Your task to perform on an android device: Open Google Maps and go to "Timeline" Image 0: 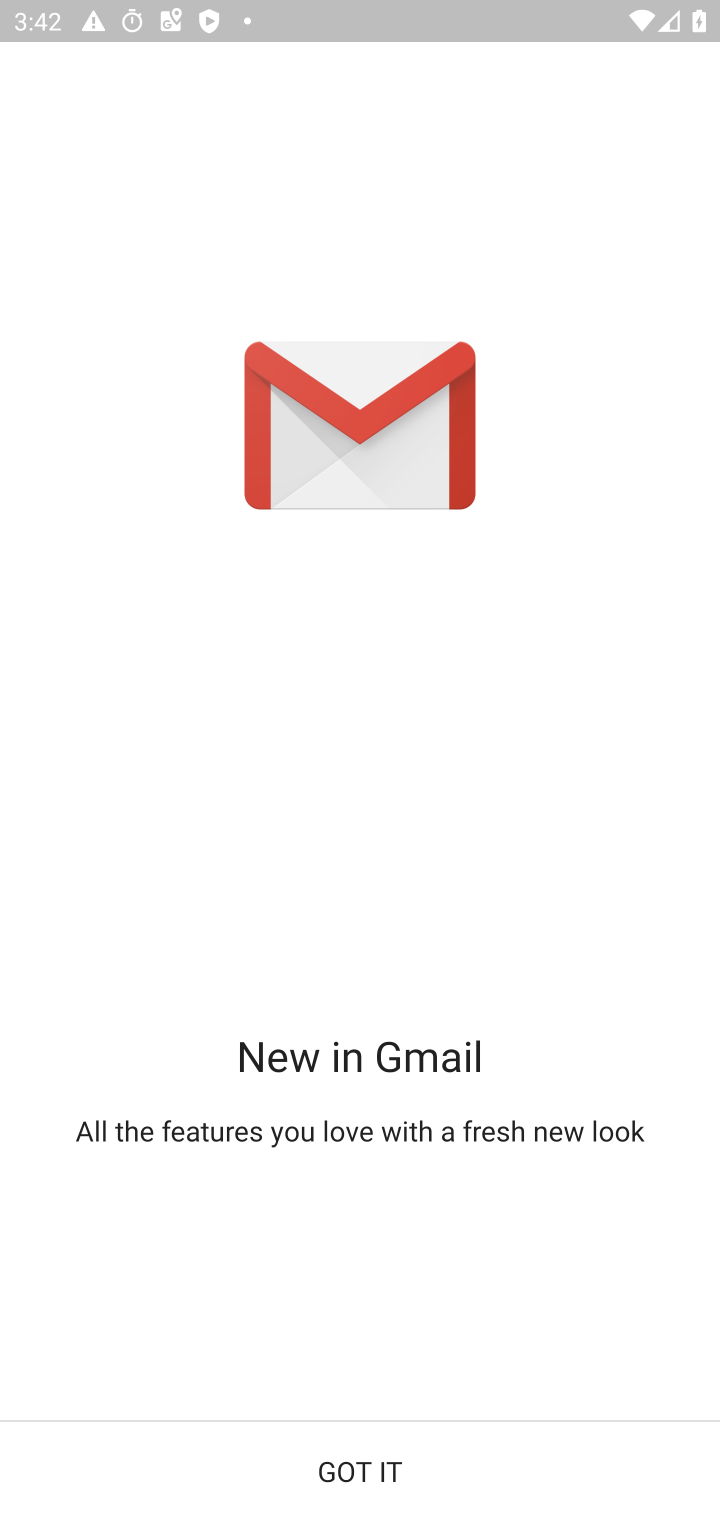
Step 0: press home button
Your task to perform on an android device: Open Google Maps and go to "Timeline" Image 1: 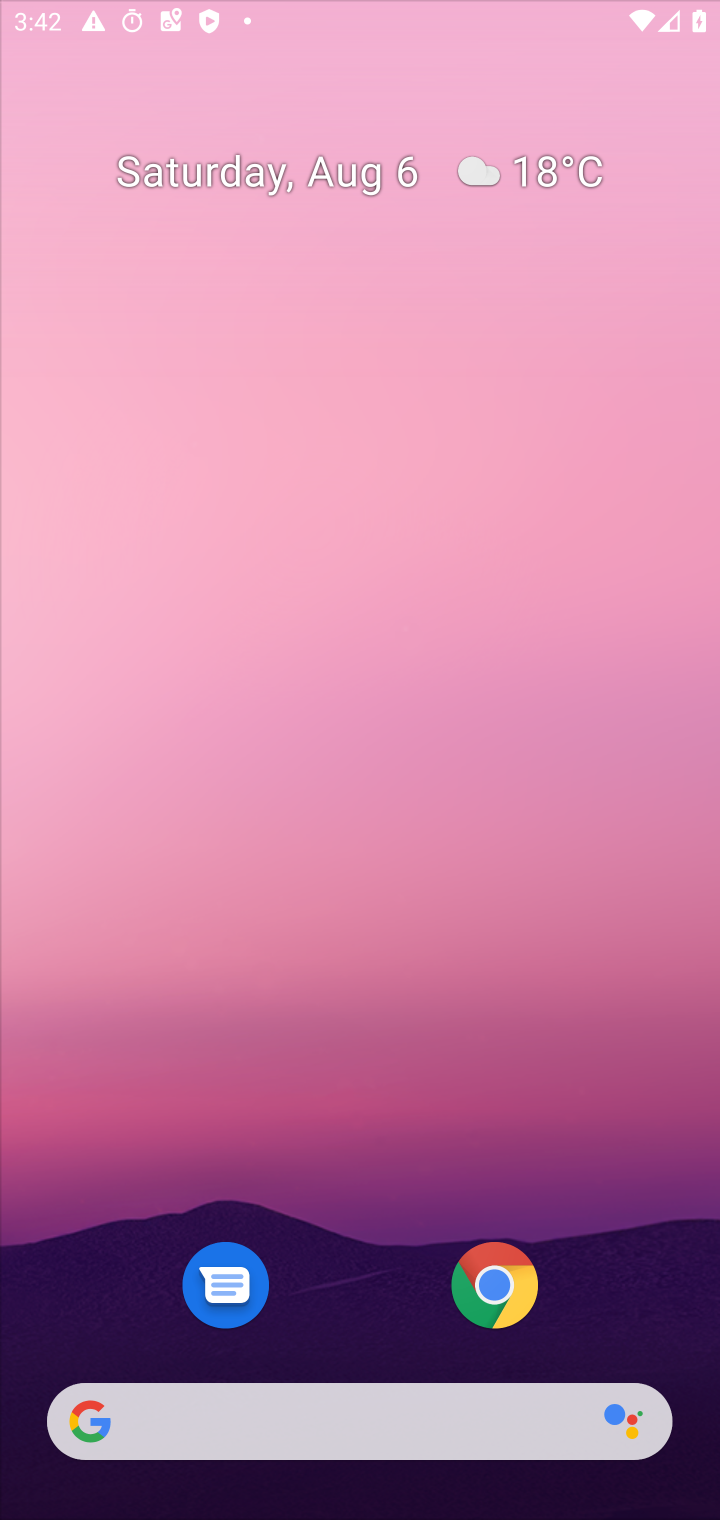
Step 1: press home button
Your task to perform on an android device: Open Google Maps and go to "Timeline" Image 2: 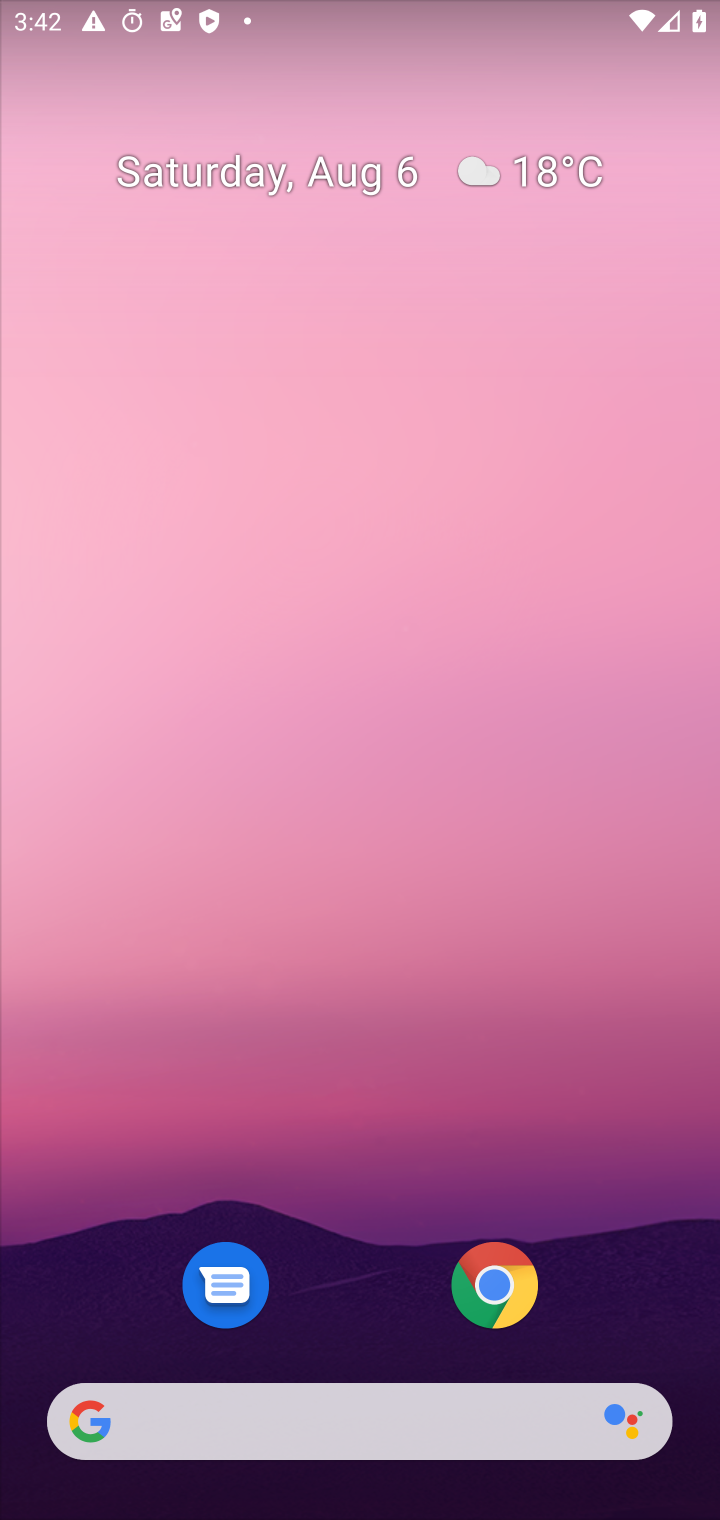
Step 2: drag from (368, 1297) to (393, 286)
Your task to perform on an android device: Open Google Maps and go to "Timeline" Image 3: 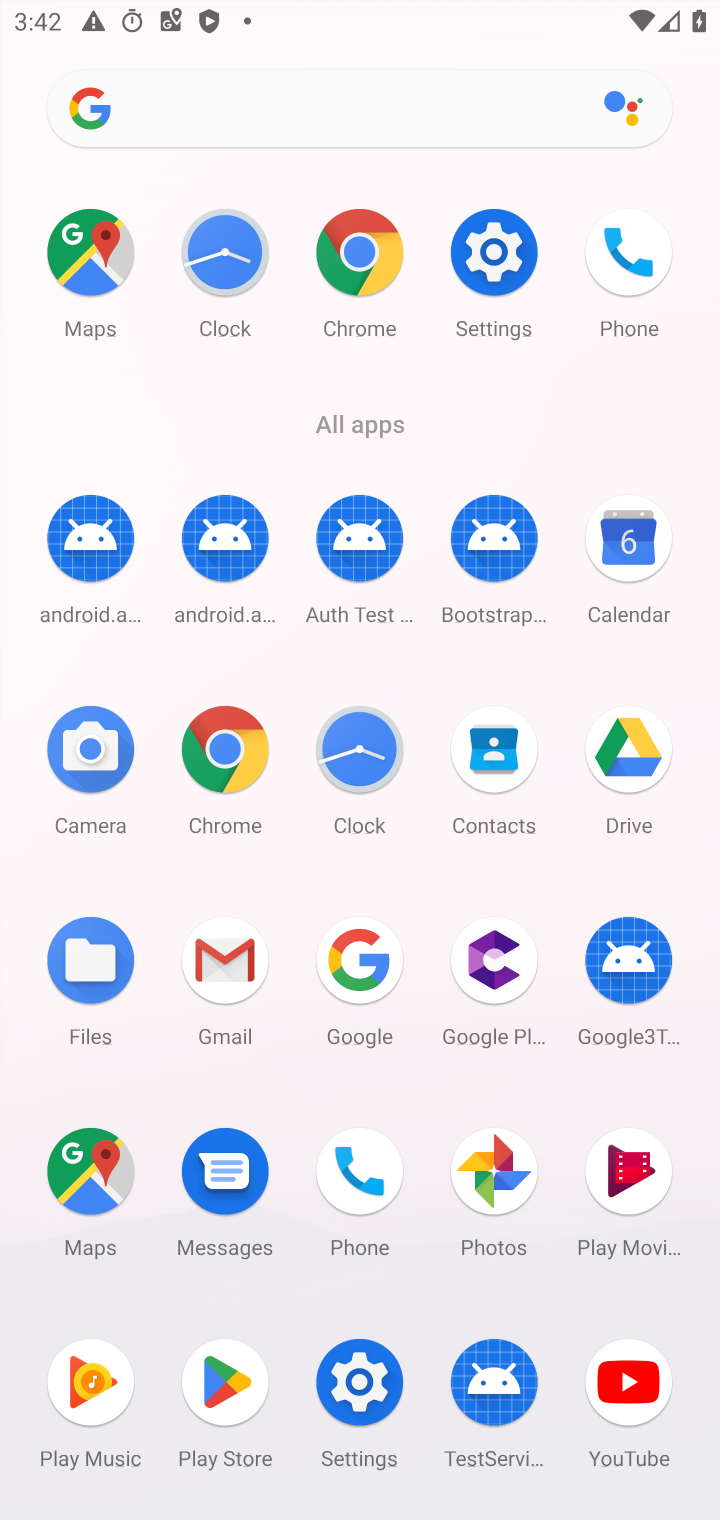
Step 3: click (81, 1156)
Your task to perform on an android device: Open Google Maps and go to "Timeline" Image 4: 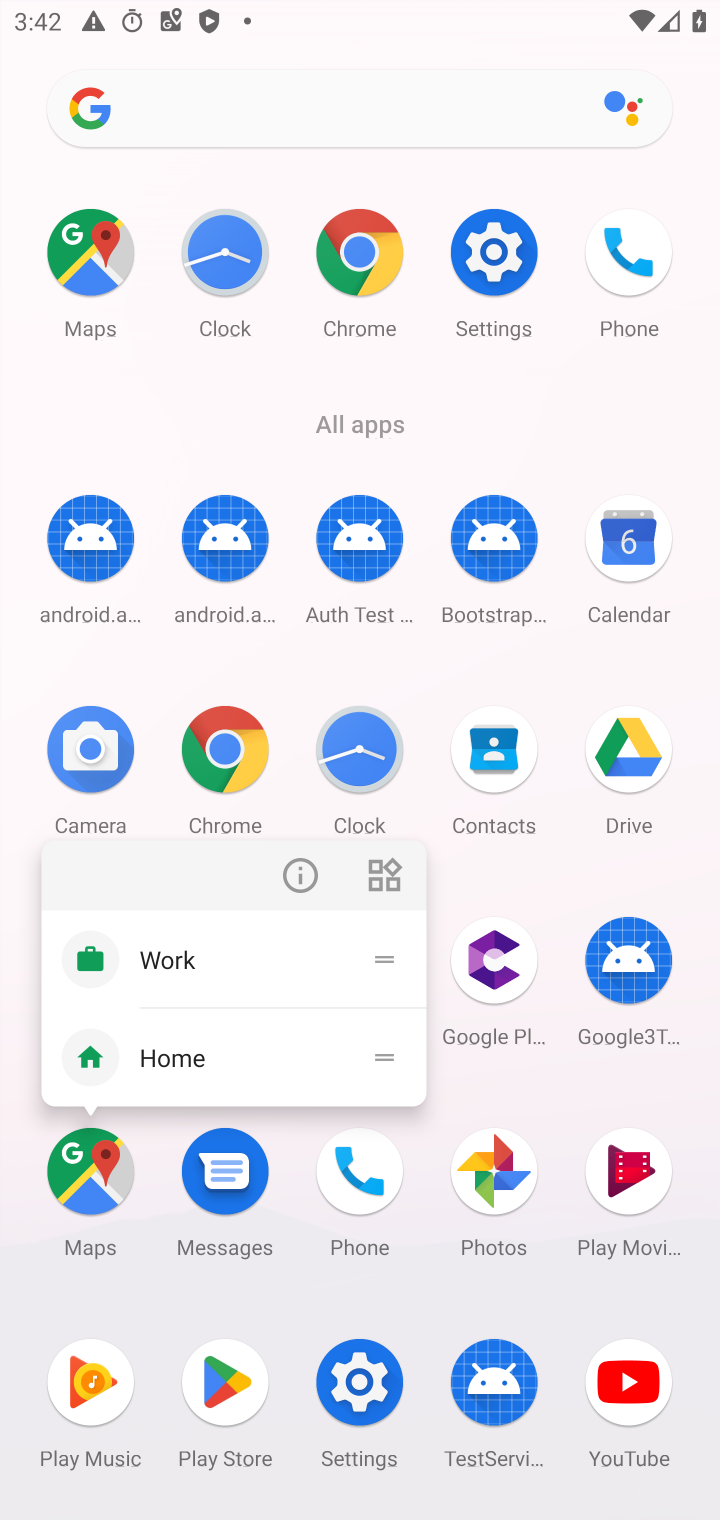
Step 4: click (93, 1154)
Your task to perform on an android device: Open Google Maps and go to "Timeline" Image 5: 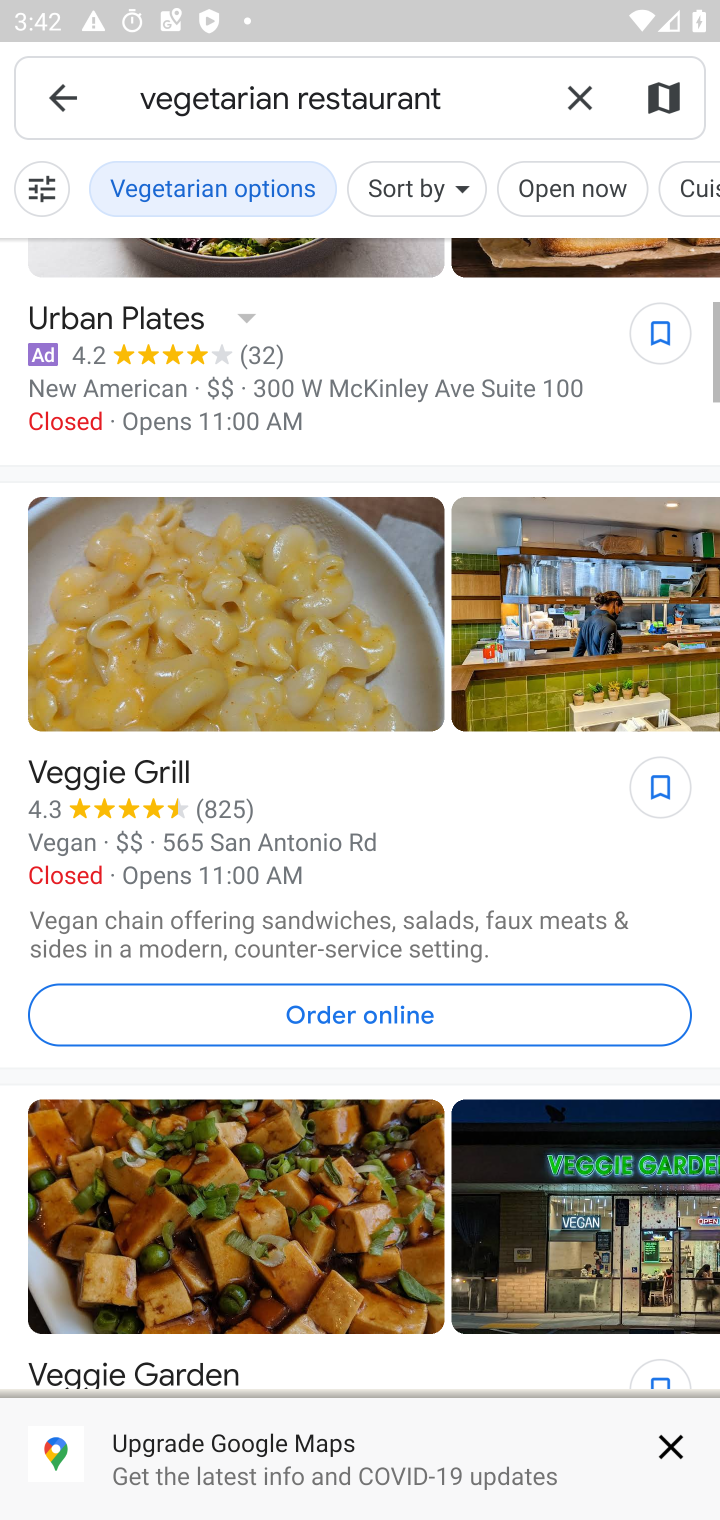
Step 5: click (59, 102)
Your task to perform on an android device: Open Google Maps and go to "Timeline" Image 6: 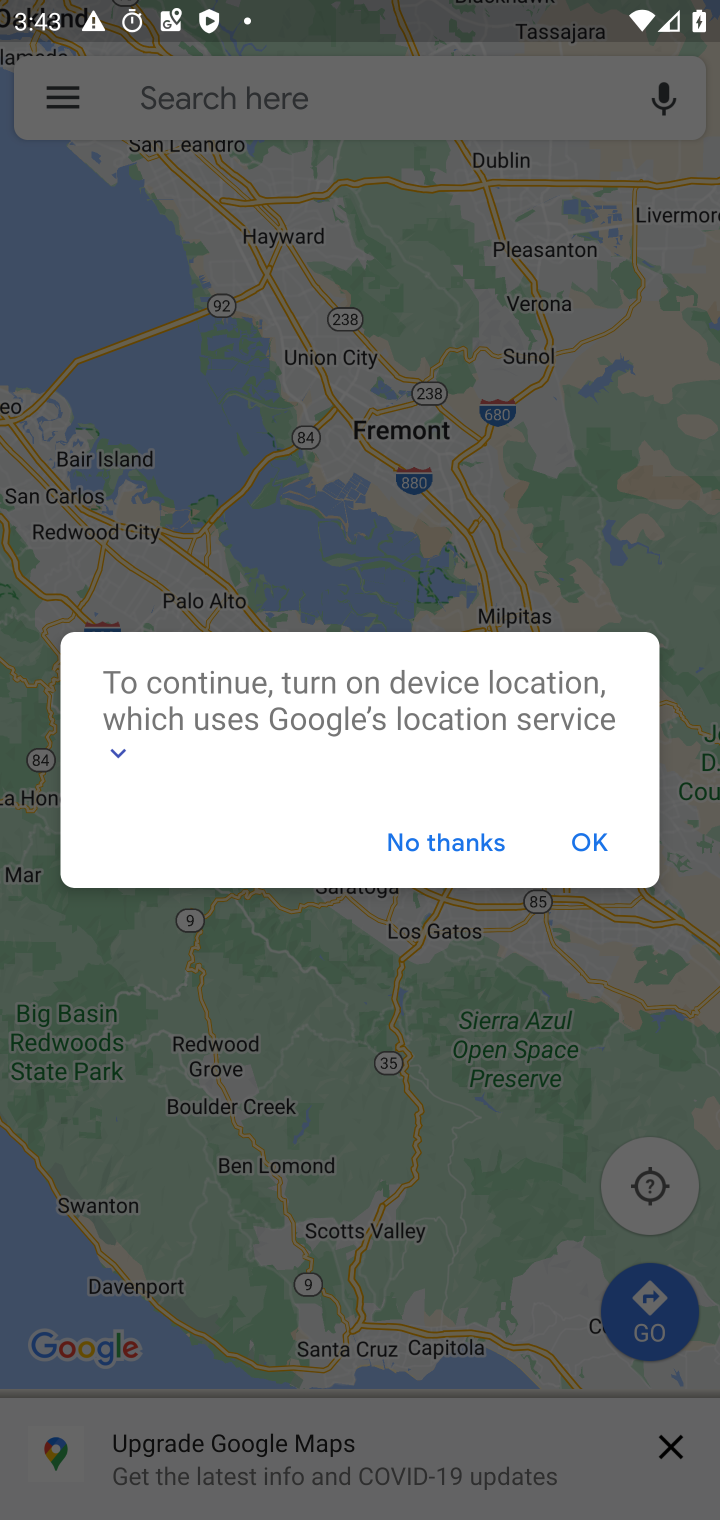
Step 6: click (596, 832)
Your task to perform on an android device: Open Google Maps and go to "Timeline" Image 7: 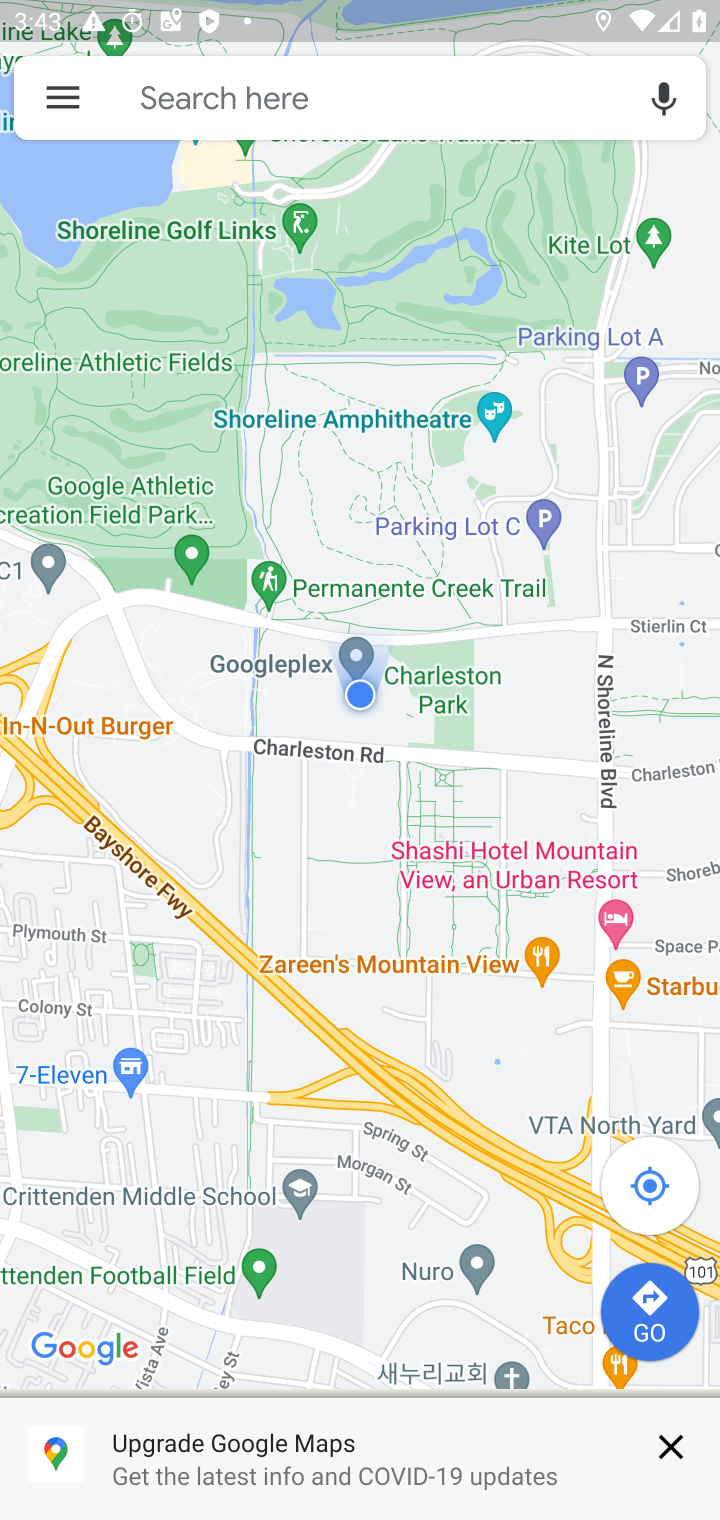
Step 7: click (55, 97)
Your task to perform on an android device: Open Google Maps and go to "Timeline" Image 8: 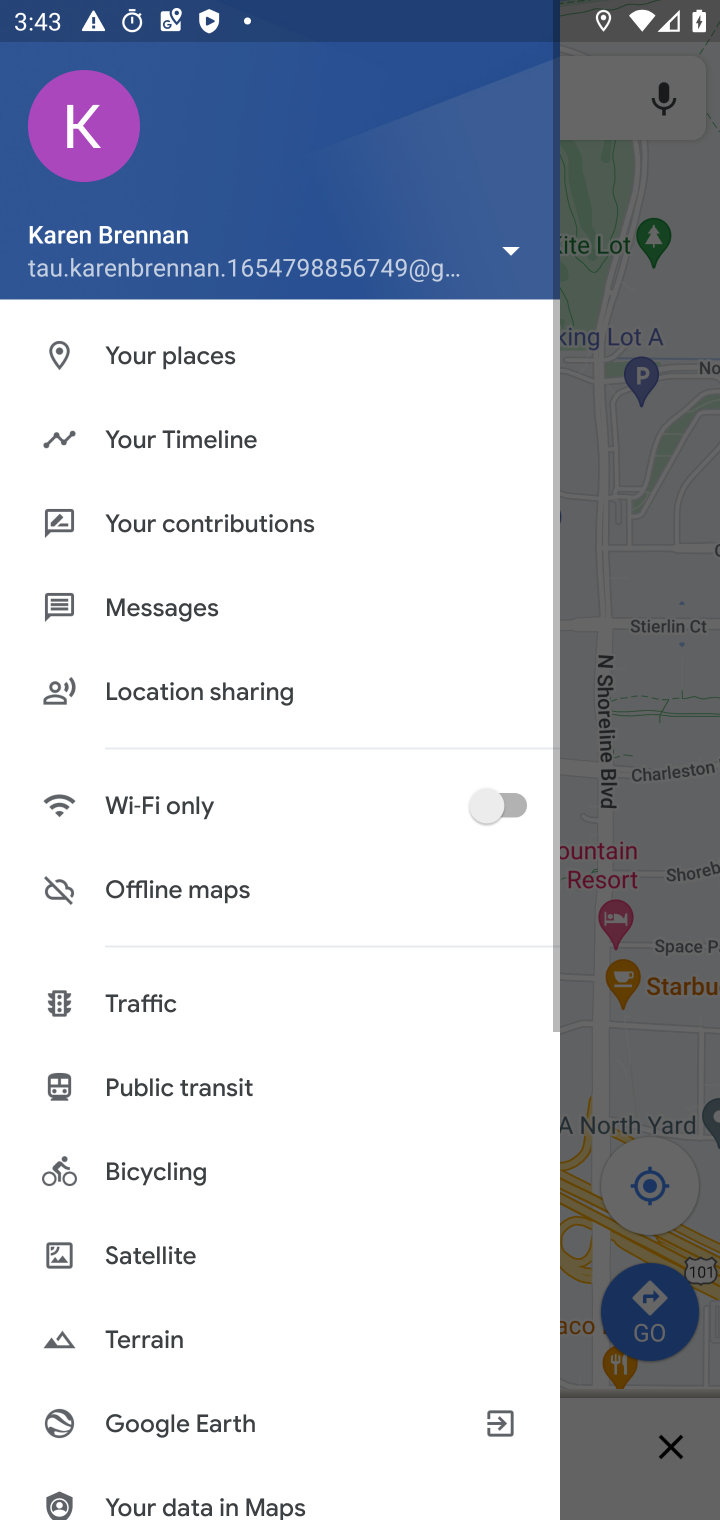
Step 8: click (192, 438)
Your task to perform on an android device: Open Google Maps and go to "Timeline" Image 9: 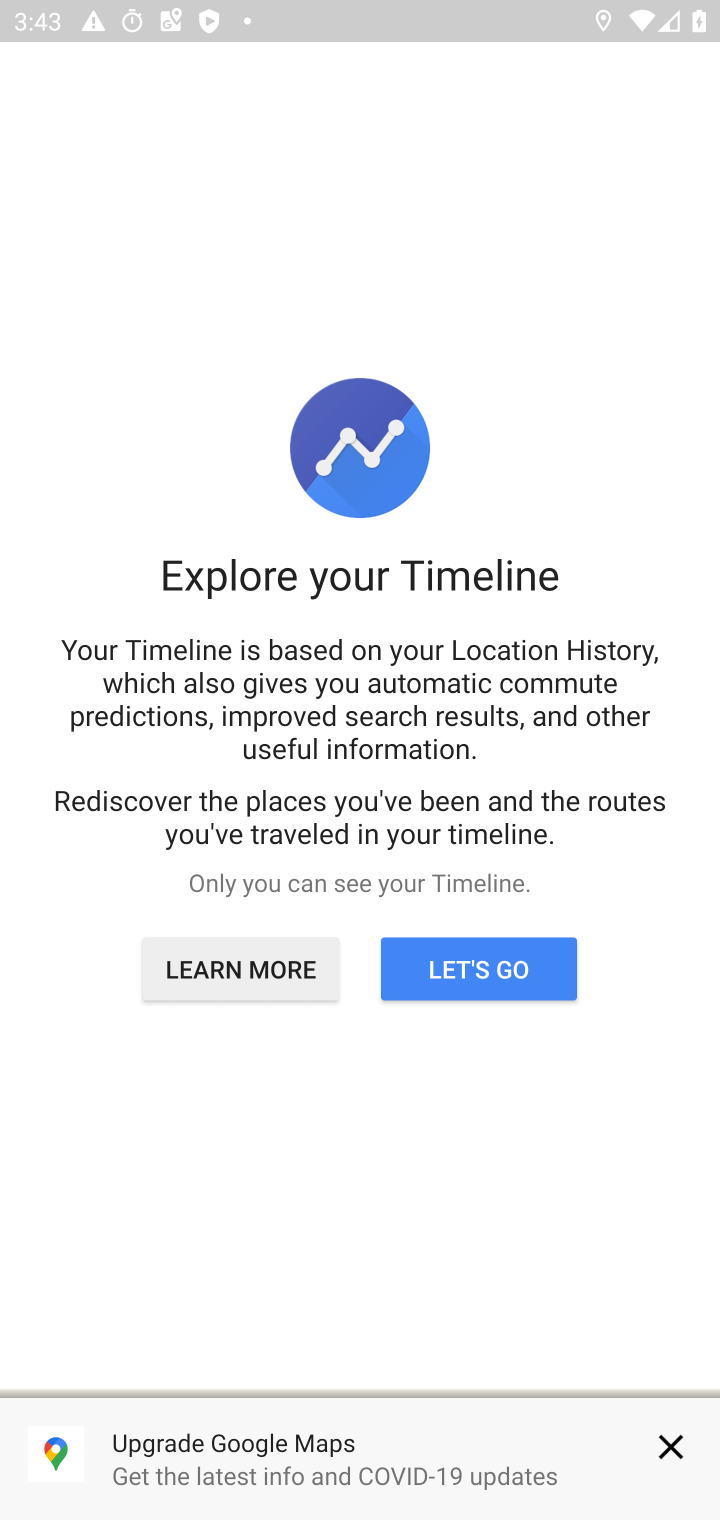
Step 9: click (502, 951)
Your task to perform on an android device: Open Google Maps and go to "Timeline" Image 10: 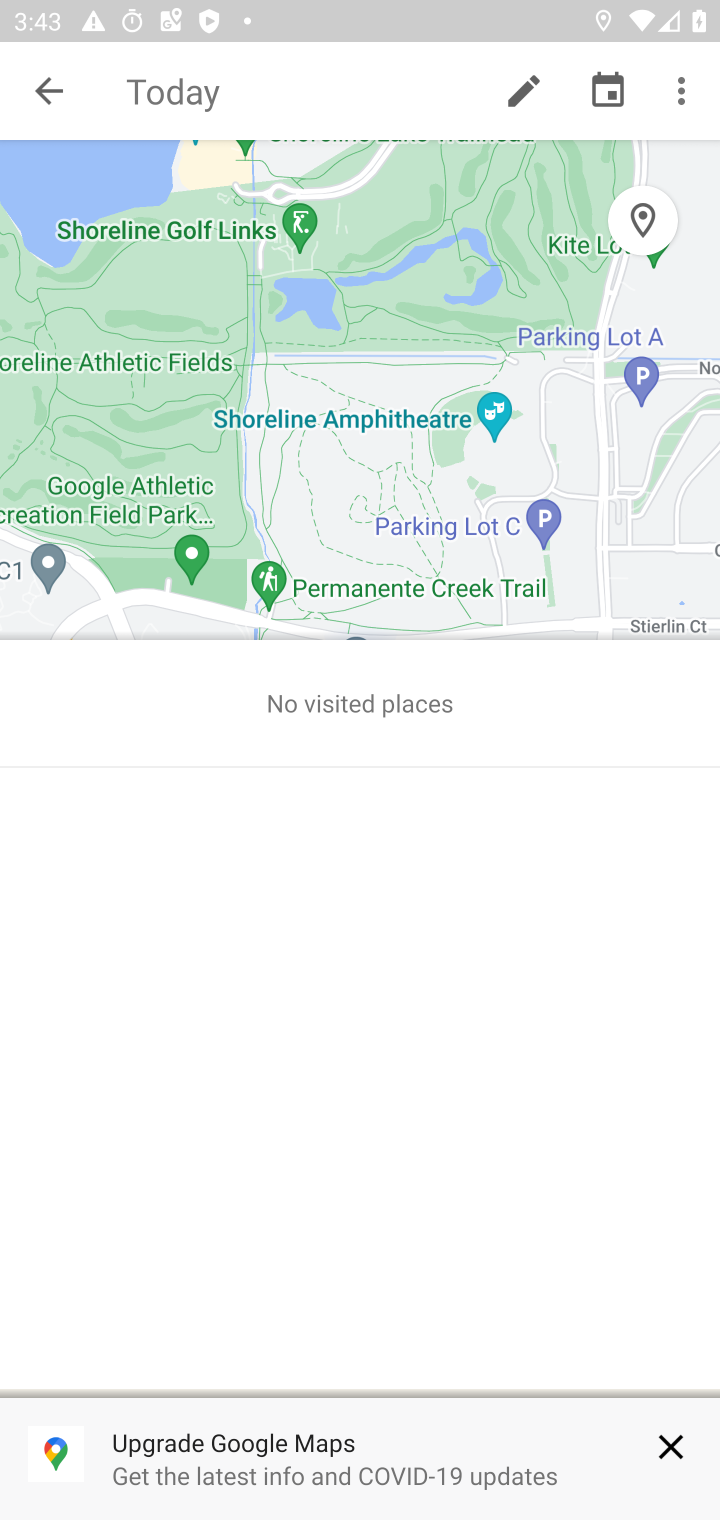
Step 10: task complete